Your task to perform on an android device: open app "Grab" (install if not already installed) Image 0: 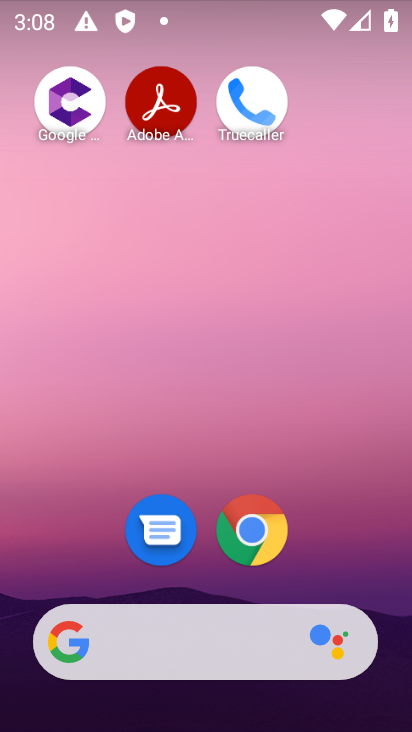
Step 0: drag from (339, 534) to (317, 3)
Your task to perform on an android device: open app "Grab" (install if not already installed) Image 1: 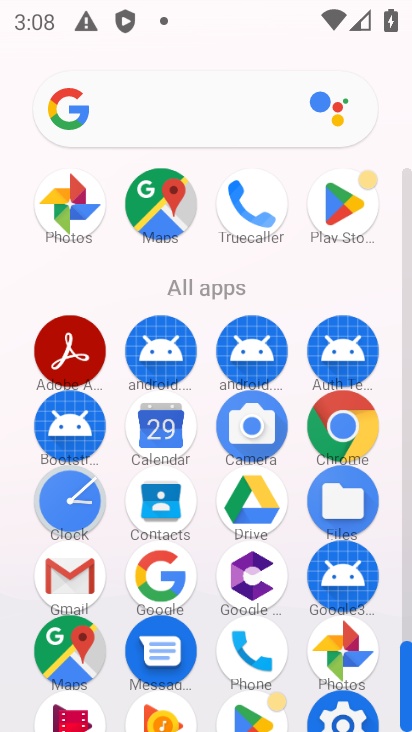
Step 1: click (340, 220)
Your task to perform on an android device: open app "Grab" (install if not already installed) Image 2: 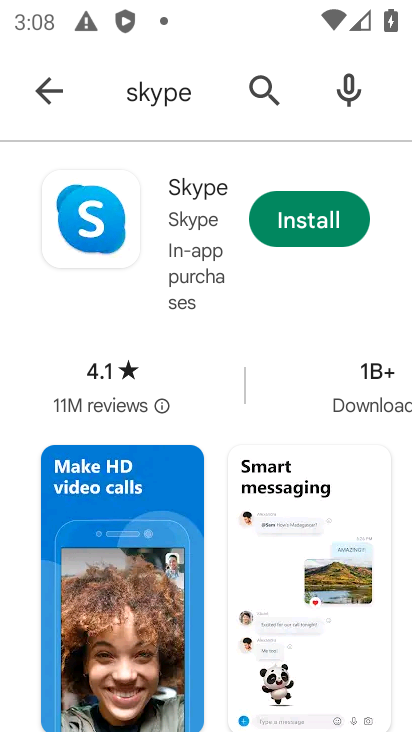
Step 2: click (260, 86)
Your task to perform on an android device: open app "Grab" (install if not already installed) Image 3: 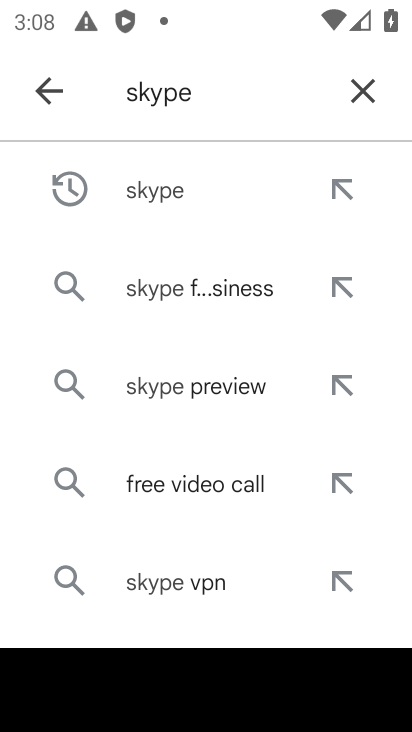
Step 3: click (348, 101)
Your task to perform on an android device: open app "Grab" (install if not already installed) Image 4: 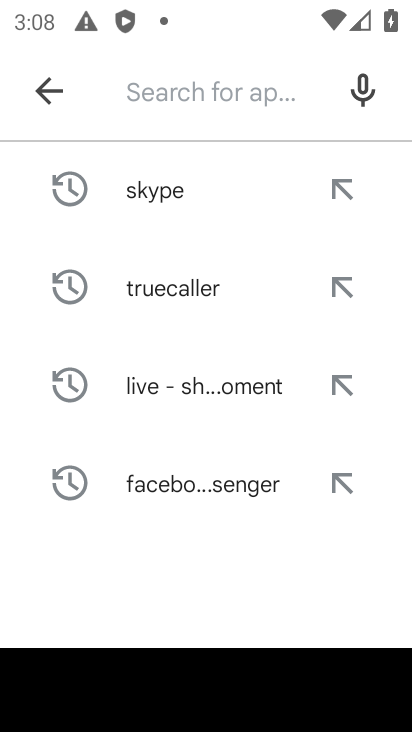
Step 4: type "Grab"
Your task to perform on an android device: open app "Grab" (install if not already installed) Image 5: 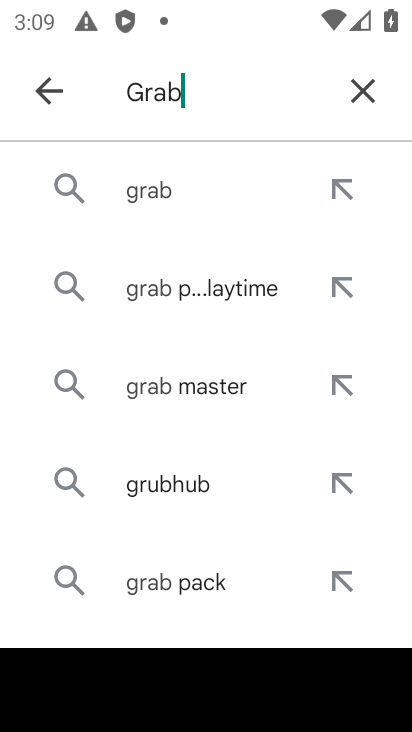
Step 5: click (154, 196)
Your task to perform on an android device: open app "Grab" (install if not already installed) Image 6: 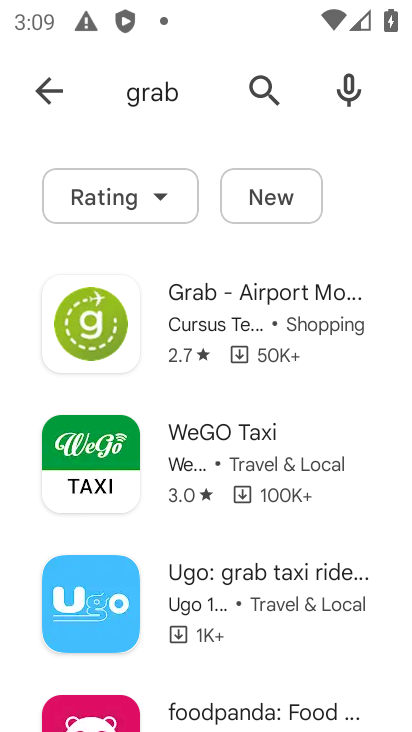
Step 6: task complete